Your task to perform on an android device: find photos in the google photos app Image 0: 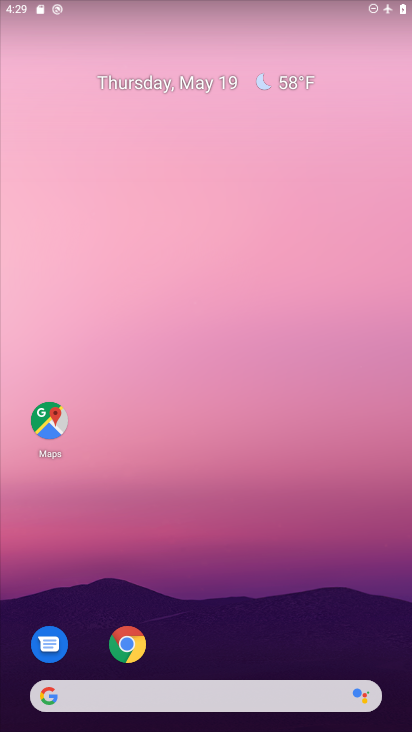
Step 0: drag from (274, 585) to (233, 78)
Your task to perform on an android device: find photos in the google photos app Image 1: 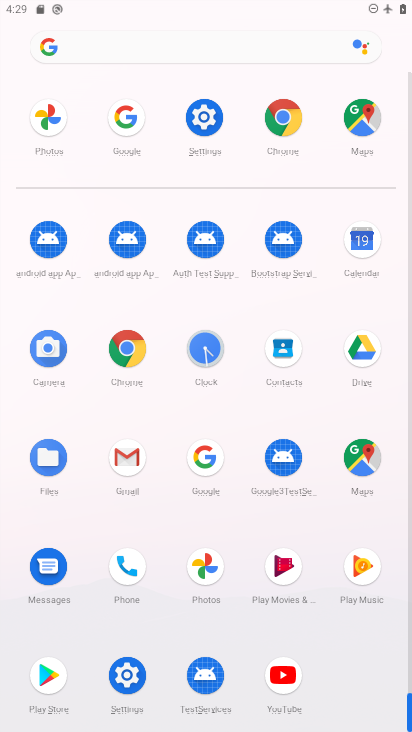
Step 1: drag from (6, 612) to (4, 284)
Your task to perform on an android device: find photos in the google photos app Image 2: 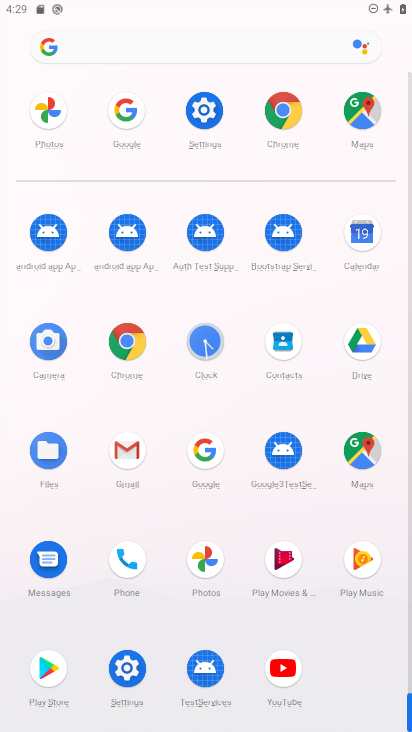
Step 2: click (207, 559)
Your task to perform on an android device: find photos in the google photos app Image 3: 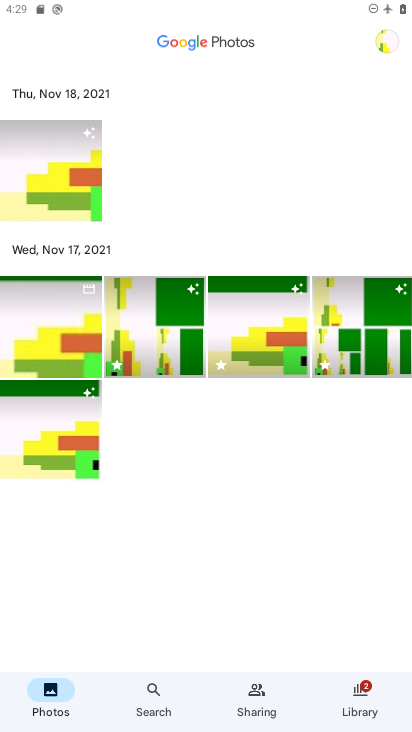
Step 3: task complete